Your task to perform on an android device: toggle translation in the chrome app Image 0: 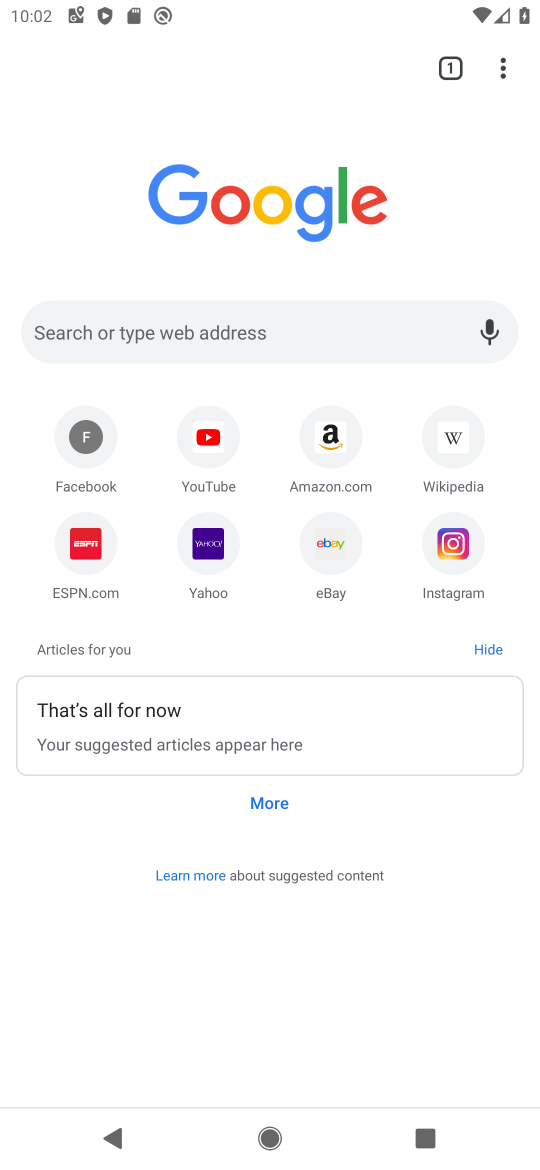
Step 0: click (505, 58)
Your task to perform on an android device: toggle translation in the chrome app Image 1: 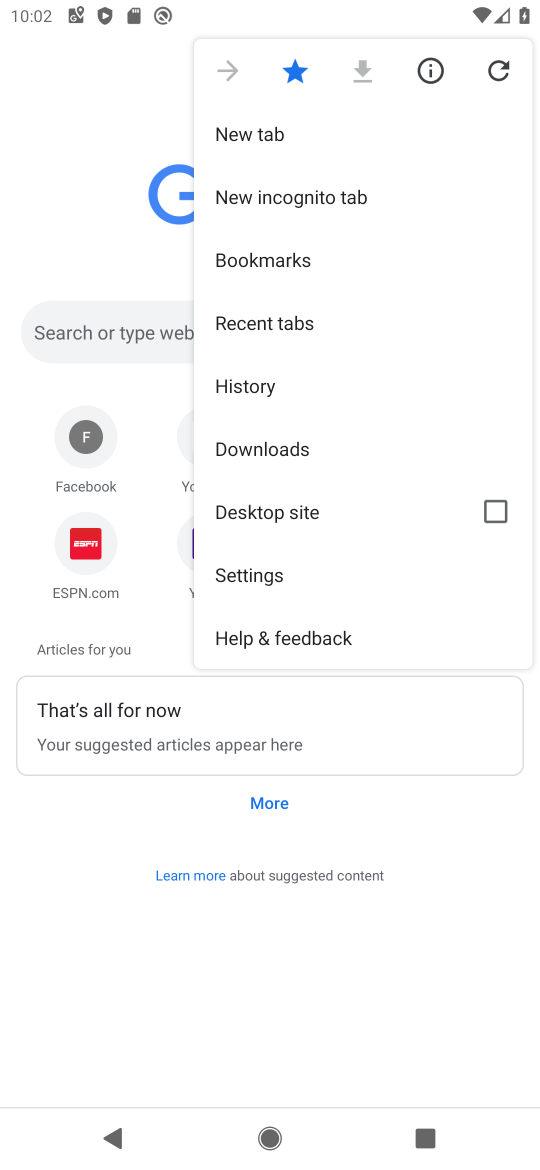
Step 1: click (299, 578)
Your task to perform on an android device: toggle translation in the chrome app Image 2: 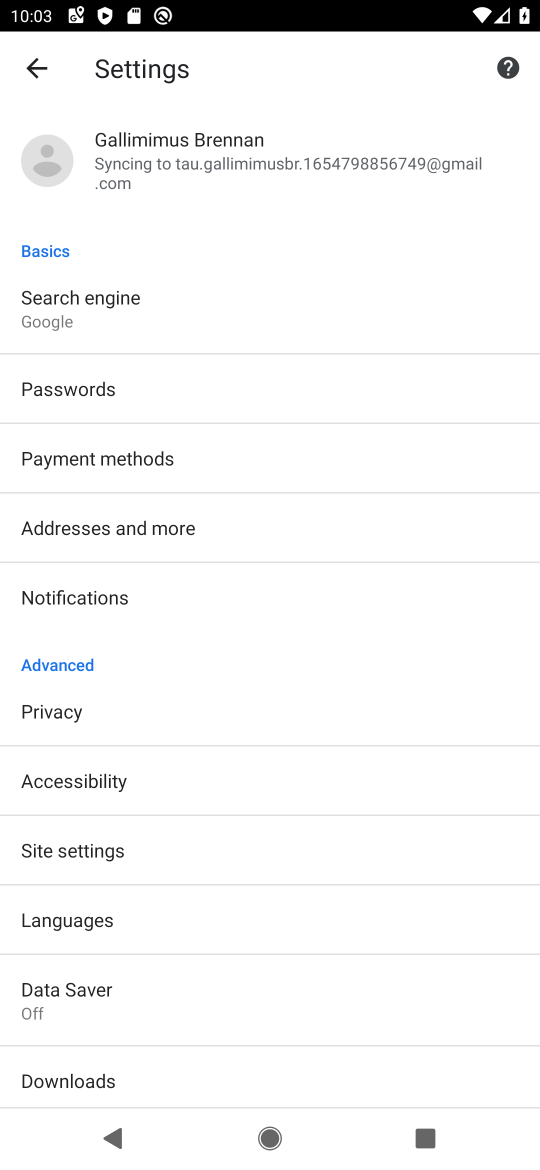
Step 2: click (150, 928)
Your task to perform on an android device: toggle translation in the chrome app Image 3: 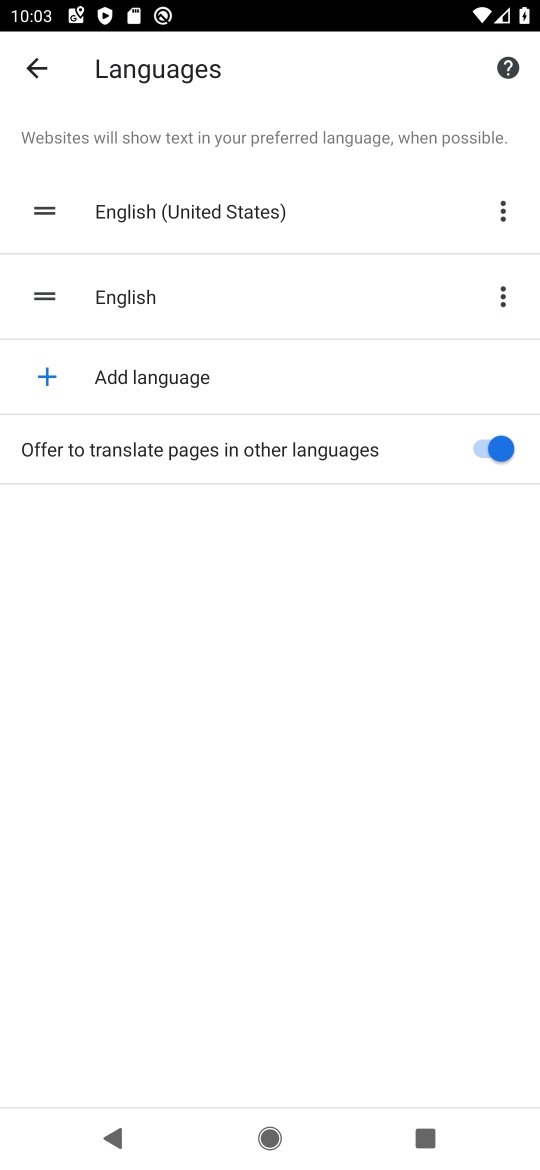
Step 3: click (491, 455)
Your task to perform on an android device: toggle translation in the chrome app Image 4: 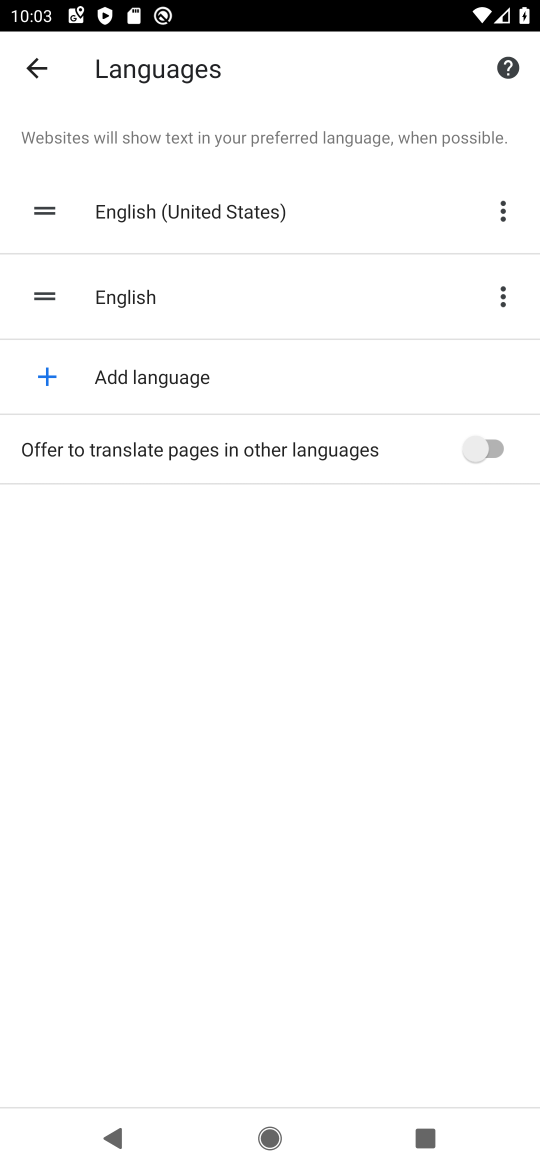
Step 4: task complete